Your task to perform on an android device: check google app version Image 0: 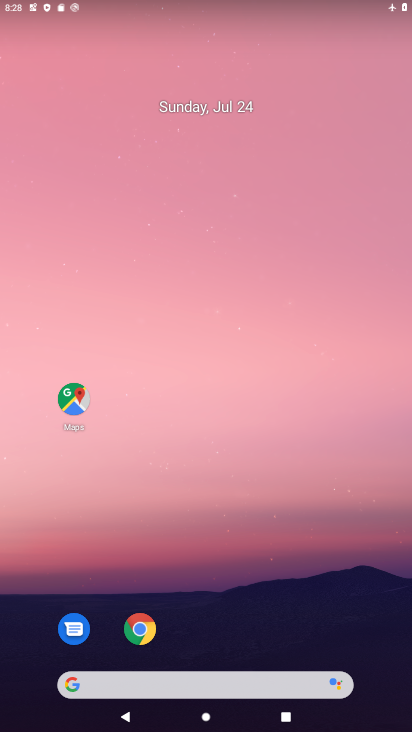
Step 0: drag from (217, 720) to (199, 119)
Your task to perform on an android device: check google app version Image 1: 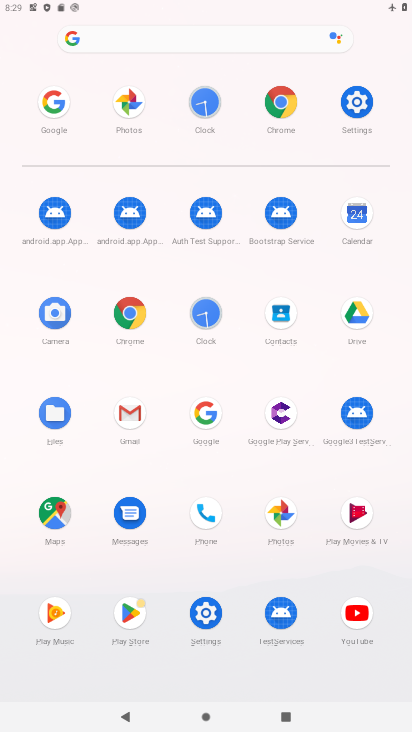
Step 1: click (204, 424)
Your task to perform on an android device: check google app version Image 2: 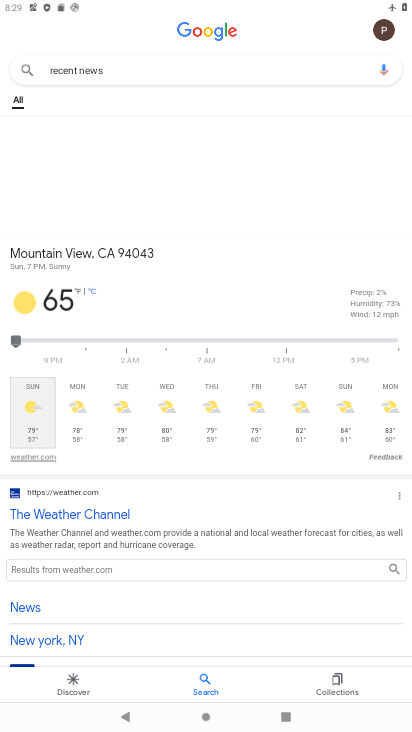
Step 2: drag from (193, 505) to (165, 234)
Your task to perform on an android device: check google app version Image 3: 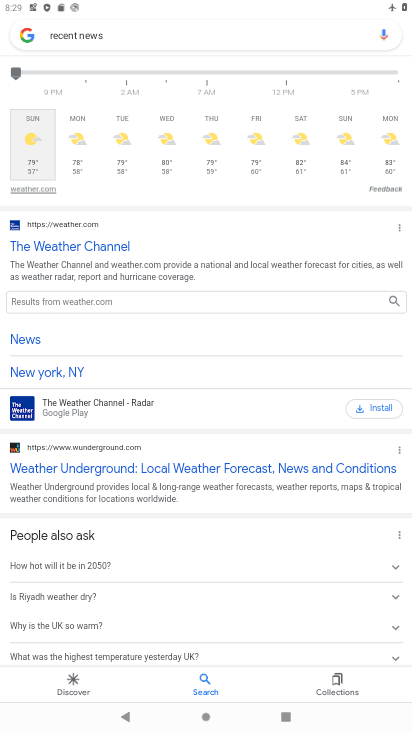
Step 3: drag from (330, 370) to (275, 712)
Your task to perform on an android device: check google app version Image 4: 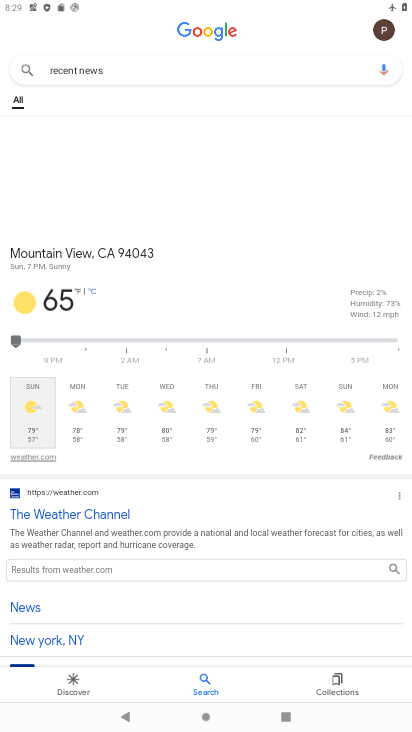
Step 4: click (387, 31)
Your task to perform on an android device: check google app version Image 5: 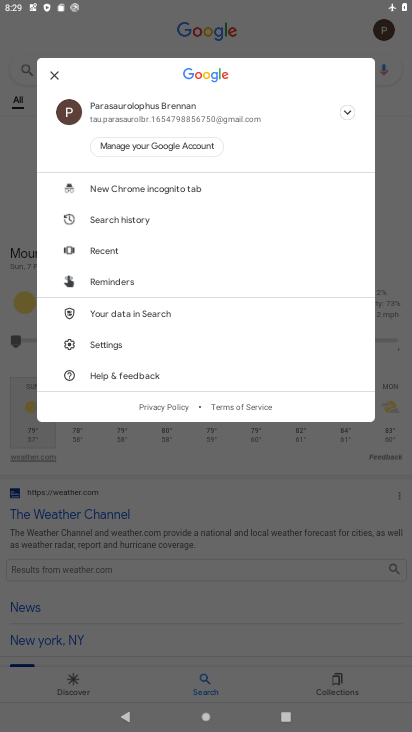
Step 5: click (108, 344)
Your task to perform on an android device: check google app version Image 6: 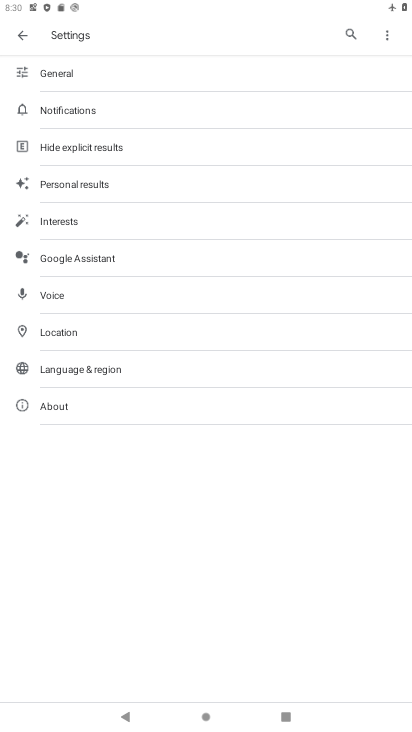
Step 6: click (71, 407)
Your task to perform on an android device: check google app version Image 7: 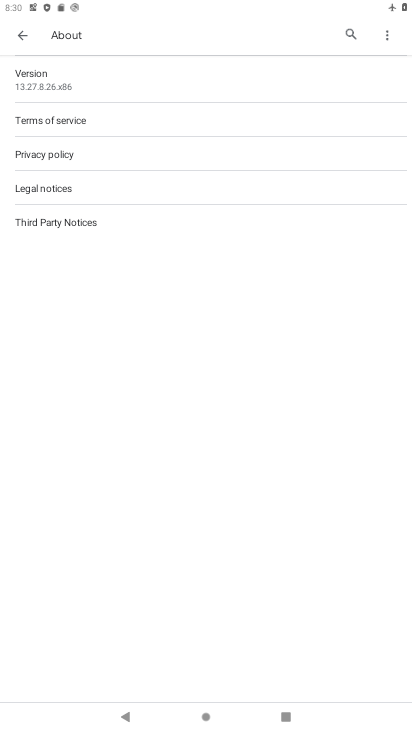
Step 7: task complete